Your task to perform on an android device: Go to Android settings Image 0: 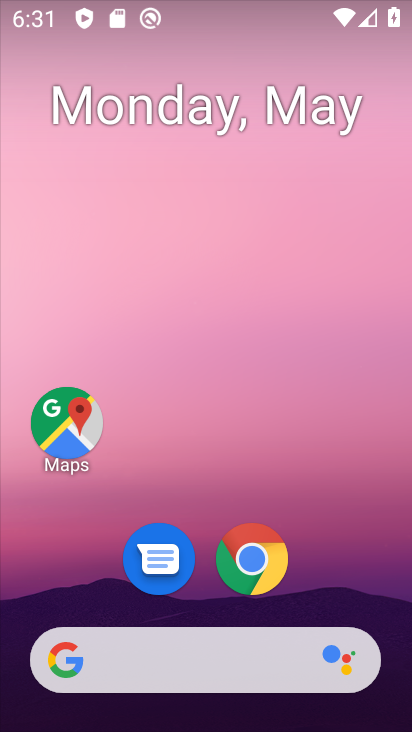
Step 0: drag from (407, 658) to (394, 2)
Your task to perform on an android device: Go to Android settings Image 1: 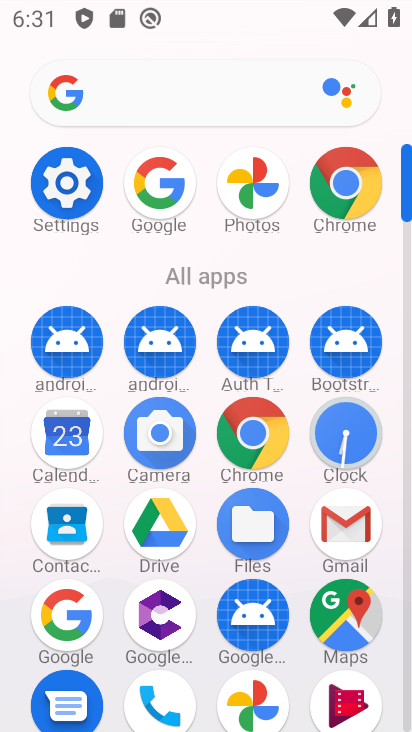
Step 1: click (58, 184)
Your task to perform on an android device: Go to Android settings Image 2: 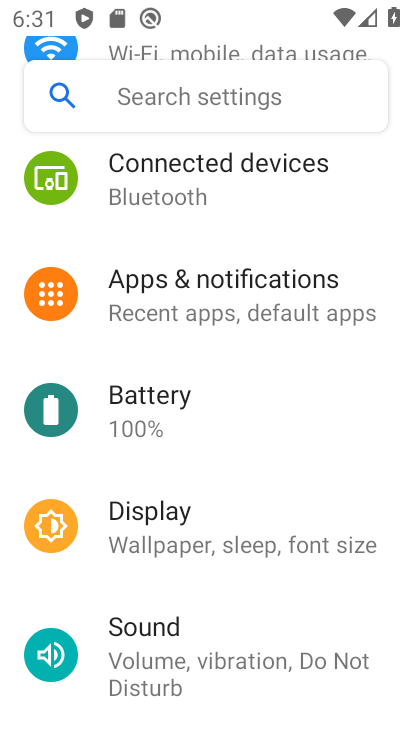
Step 2: drag from (121, 687) to (283, 79)
Your task to perform on an android device: Go to Android settings Image 3: 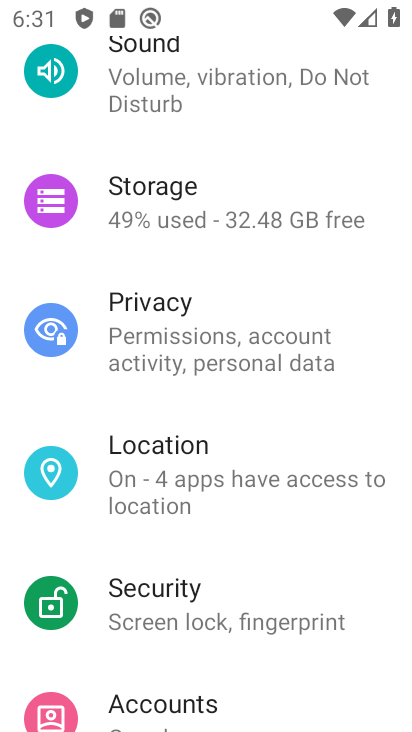
Step 3: drag from (192, 648) to (293, 17)
Your task to perform on an android device: Go to Android settings Image 4: 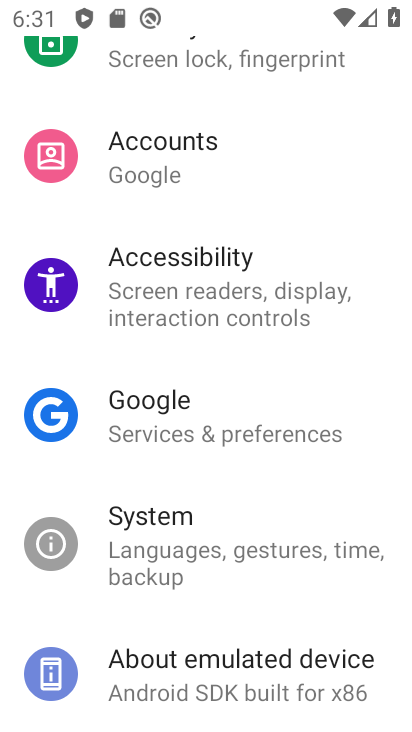
Step 4: drag from (179, 690) to (245, 87)
Your task to perform on an android device: Go to Android settings Image 5: 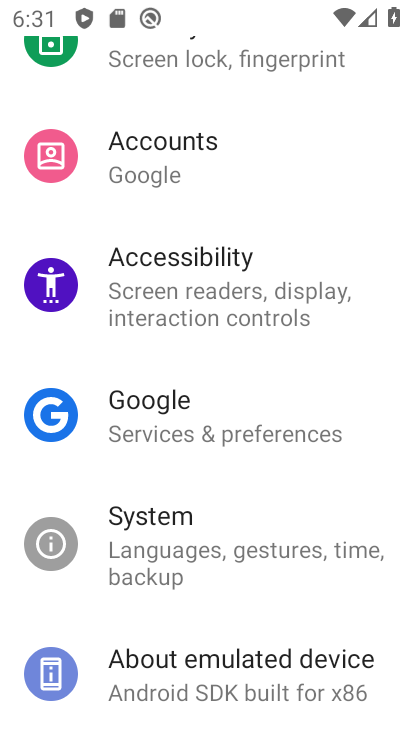
Step 5: click (239, 690)
Your task to perform on an android device: Go to Android settings Image 6: 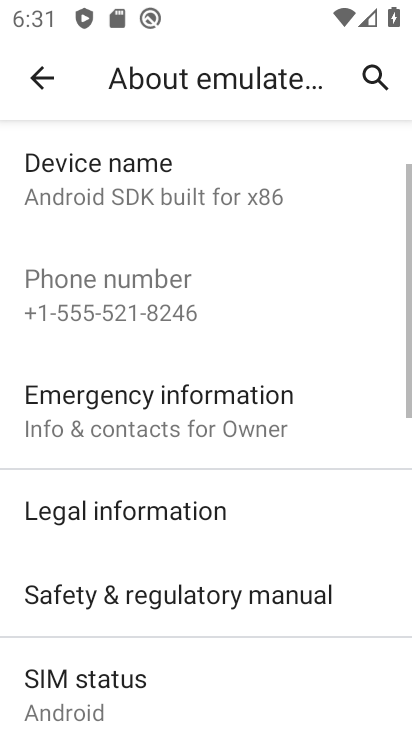
Step 6: drag from (228, 646) to (301, 175)
Your task to perform on an android device: Go to Android settings Image 7: 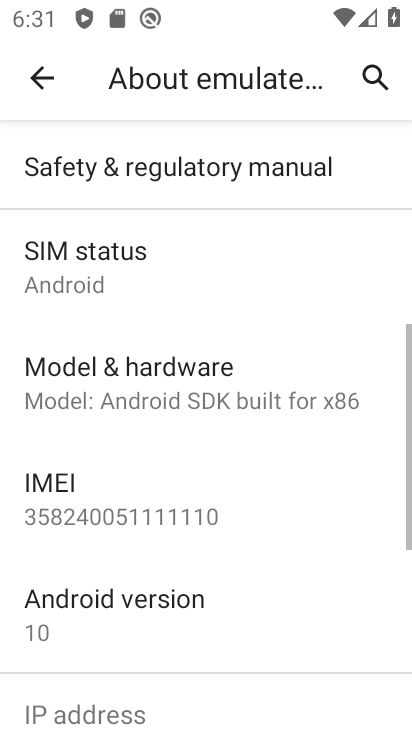
Step 7: click (203, 603)
Your task to perform on an android device: Go to Android settings Image 8: 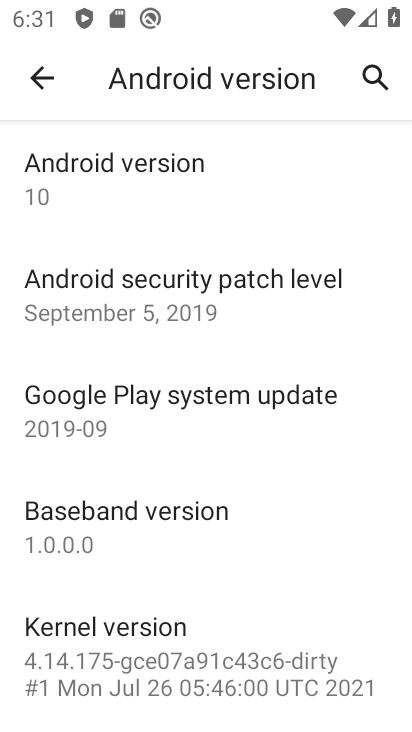
Step 8: task complete